Your task to perform on an android device: Go to Reddit.com Image 0: 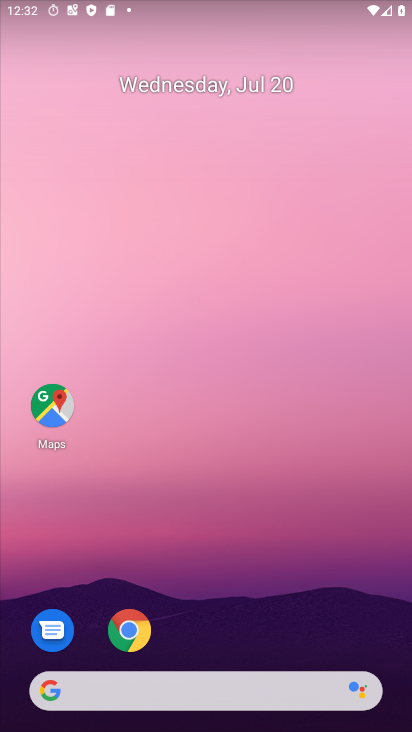
Step 0: click (132, 632)
Your task to perform on an android device: Go to Reddit.com Image 1: 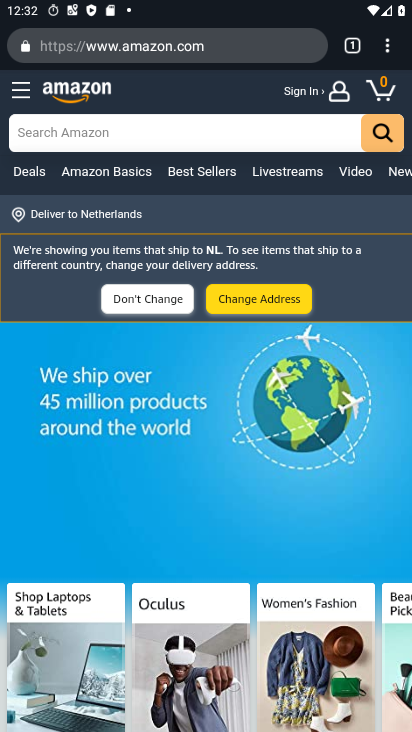
Step 1: click (248, 36)
Your task to perform on an android device: Go to Reddit.com Image 2: 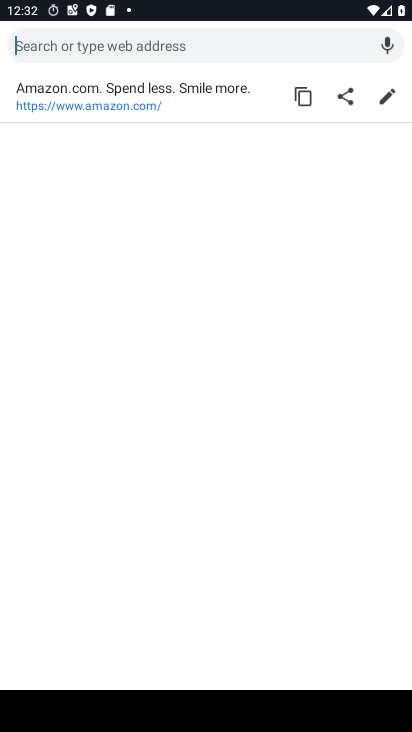
Step 2: type "Reddit.com"
Your task to perform on an android device: Go to Reddit.com Image 3: 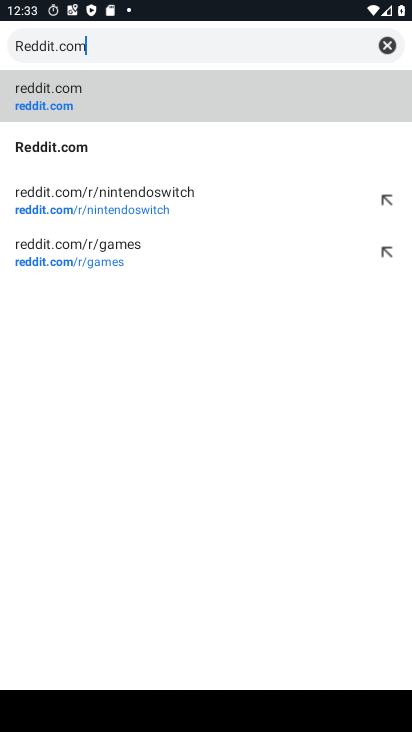
Step 3: click (83, 81)
Your task to perform on an android device: Go to Reddit.com Image 4: 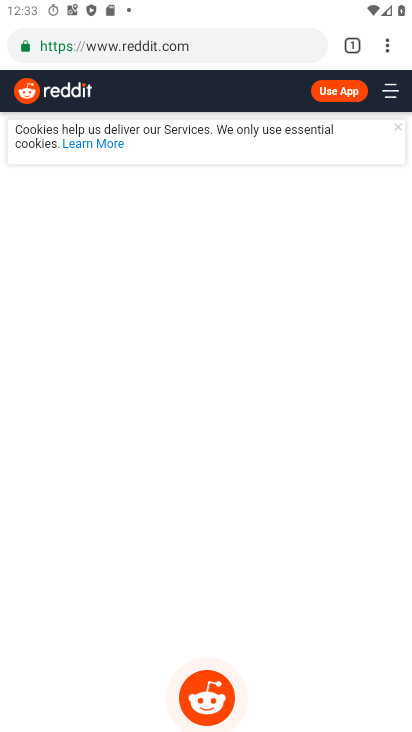
Step 4: task complete